Your task to perform on an android device: Search for usb-c to usb-b on newegg.com, select the first entry, and add it to the cart. Image 0: 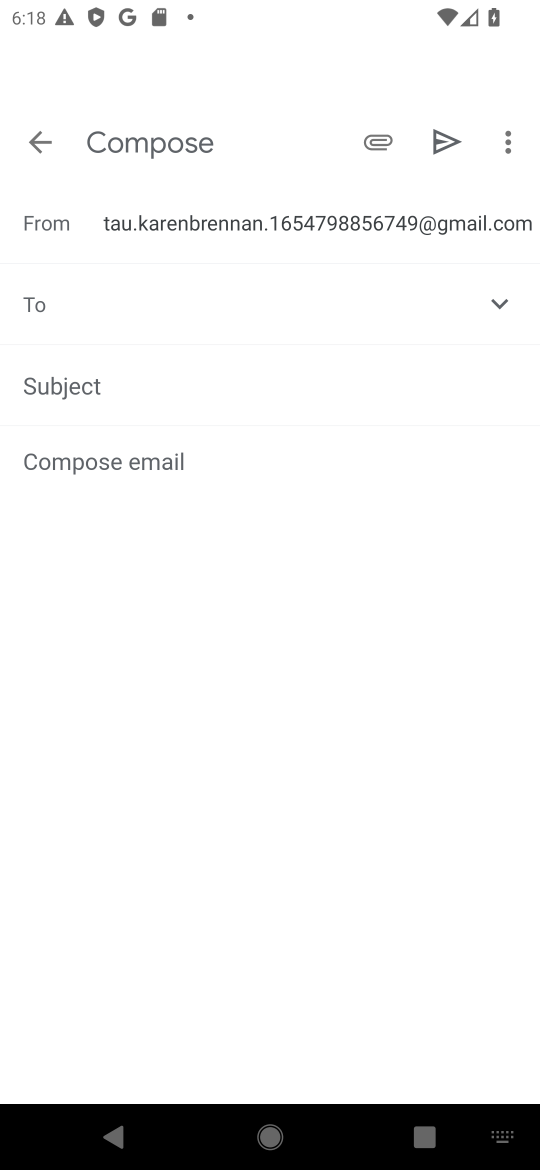
Step 0: press home button
Your task to perform on an android device: Search for usb-c to usb-b on newegg.com, select the first entry, and add it to the cart. Image 1: 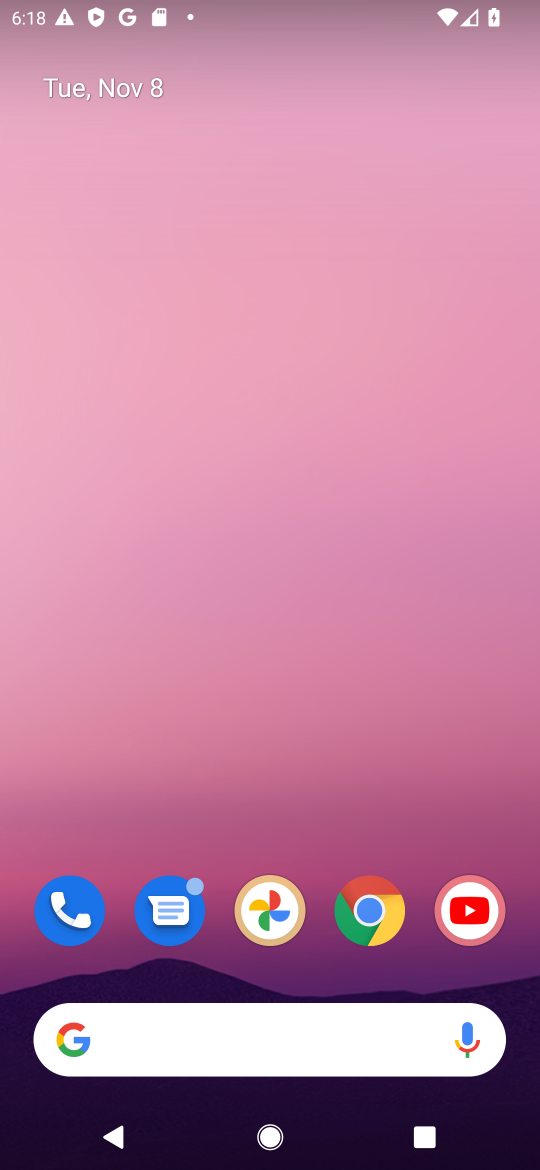
Step 1: click (346, 906)
Your task to perform on an android device: Search for usb-c to usb-b on newegg.com, select the first entry, and add it to the cart. Image 2: 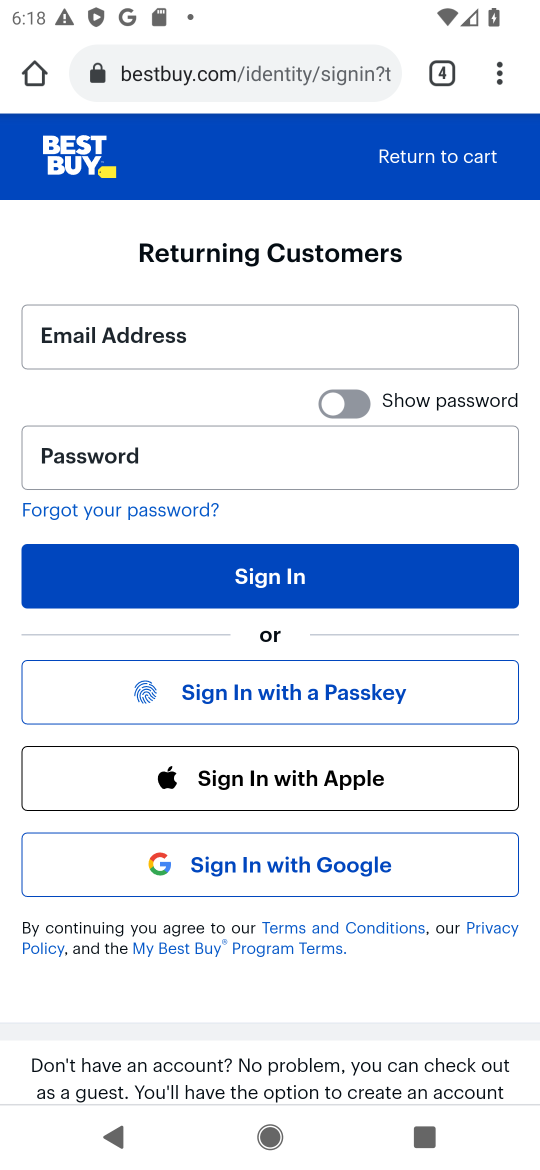
Step 2: click (443, 58)
Your task to perform on an android device: Search for usb-c to usb-b on newegg.com, select the first entry, and add it to the cart. Image 3: 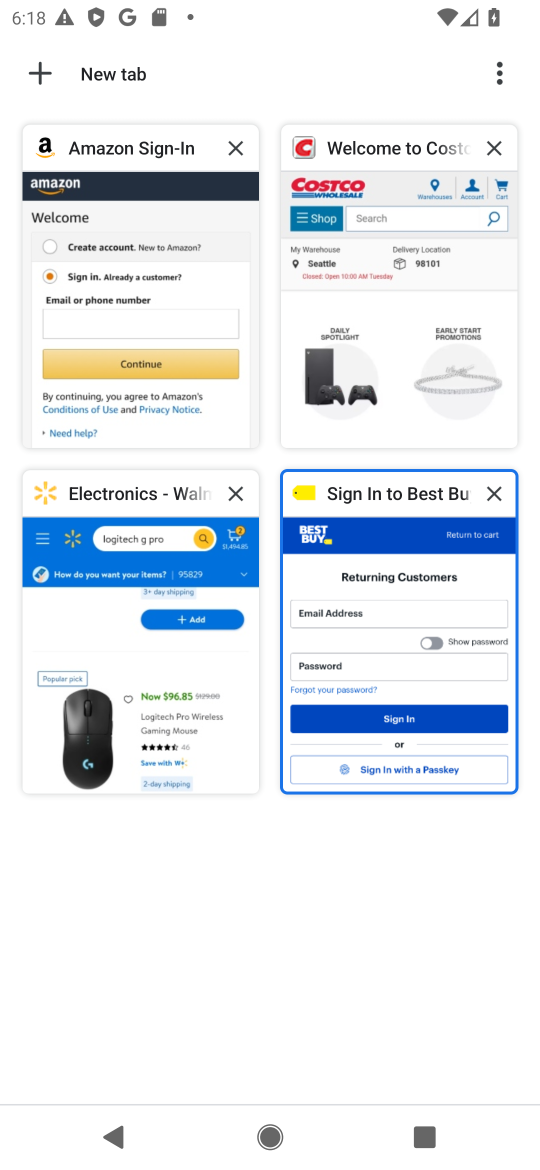
Step 3: click (40, 63)
Your task to perform on an android device: Search for usb-c to usb-b on newegg.com, select the first entry, and add it to the cart. Image 4: 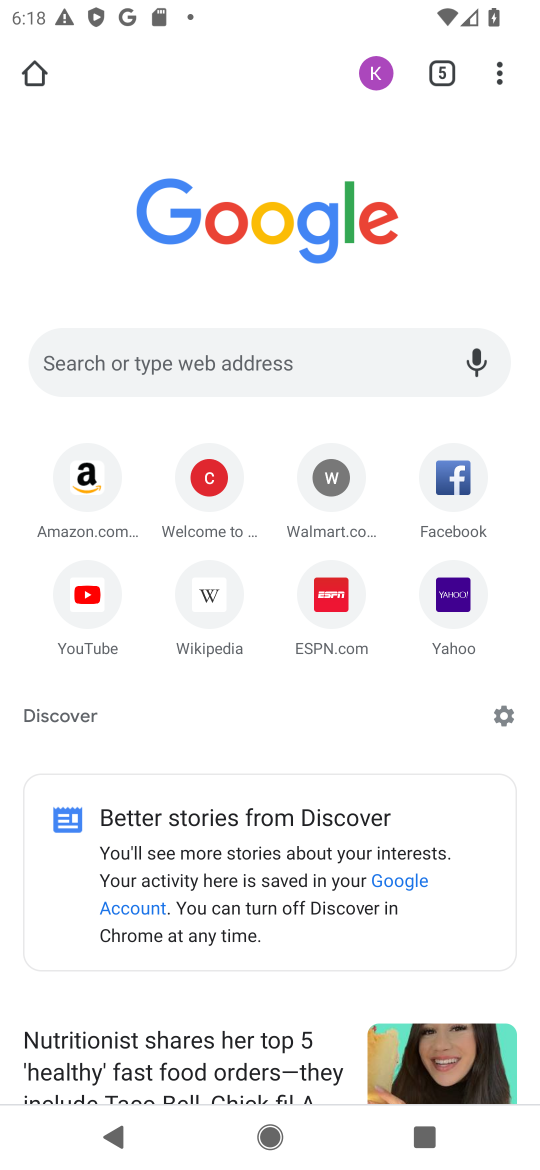
Step 4: click (233, 367)
Your task to perform on an android device: Search for usb-c to usb-b on newegg.com, select the first entry, and add it to the cart. Image 5: 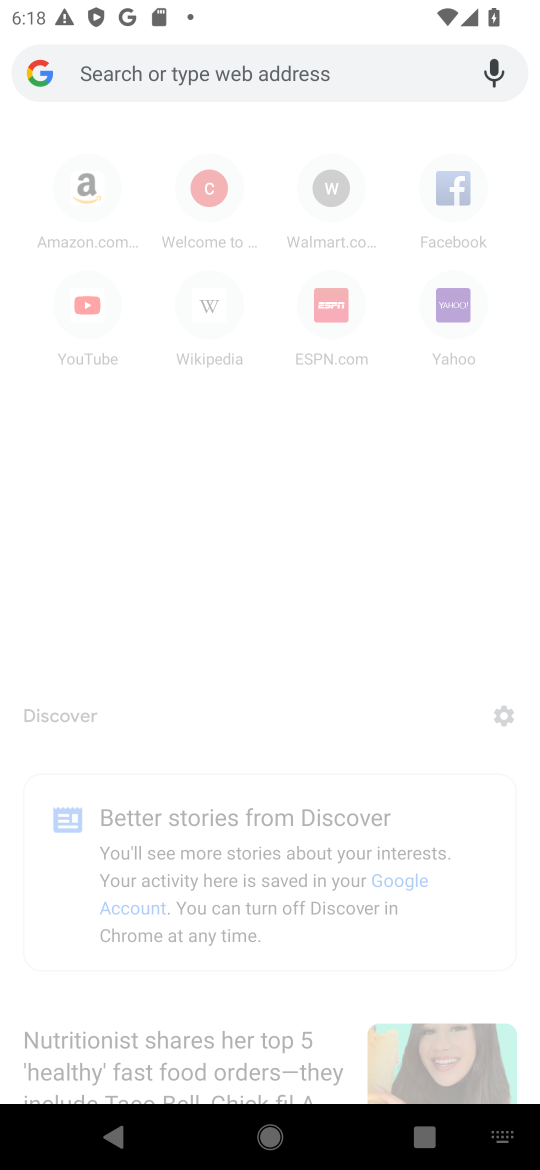
Step 5: type "newegg"
Your task to perform on an android device: Search for usb-c to usb-b on newegg.com, select the first entry, and add it to the cart. Image 6: 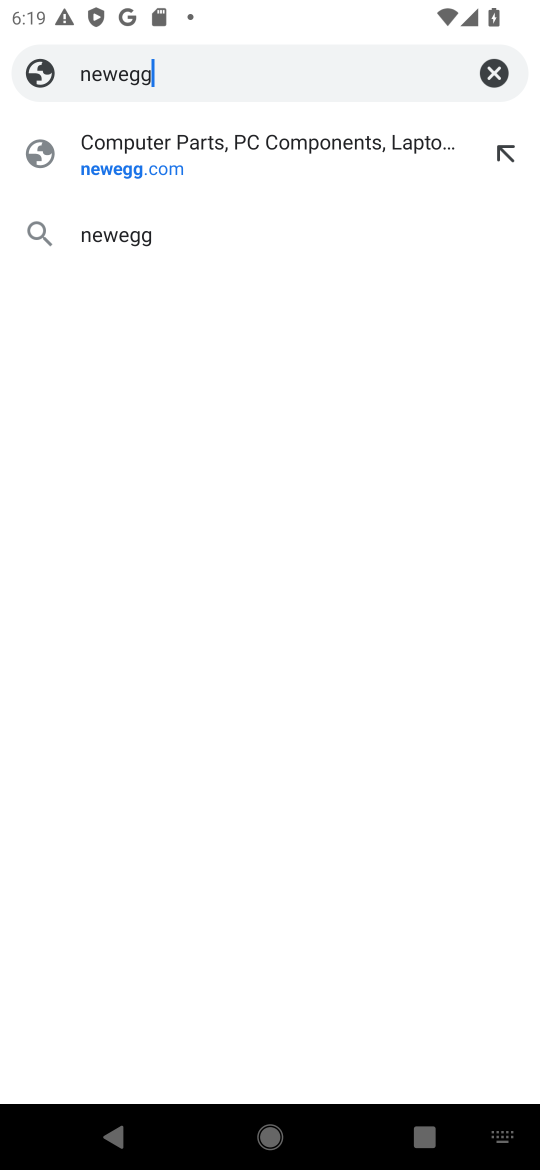
Step 6: click (181, 132)
Your task to perform on an android device: Search for usb-c to usb-b on newegg.com, select the first entry, and add it to the cart. Image 7: 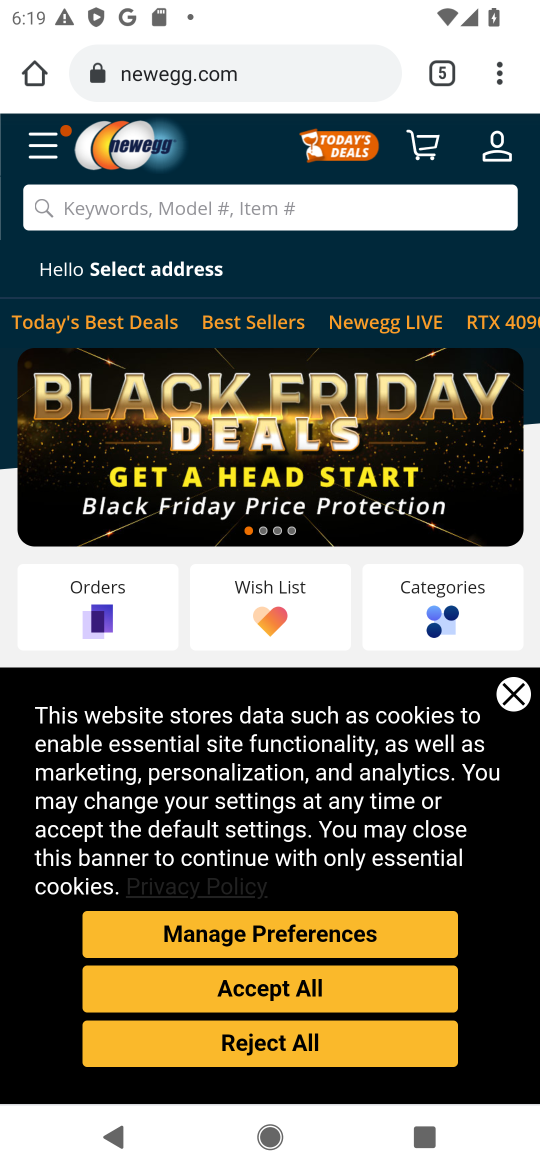
Step 7: click (147, 217)
Your task to perform on an android device: Search for usb-c to usb-b on newegg.com, select the first entry, and add it to the cart. Image 8: 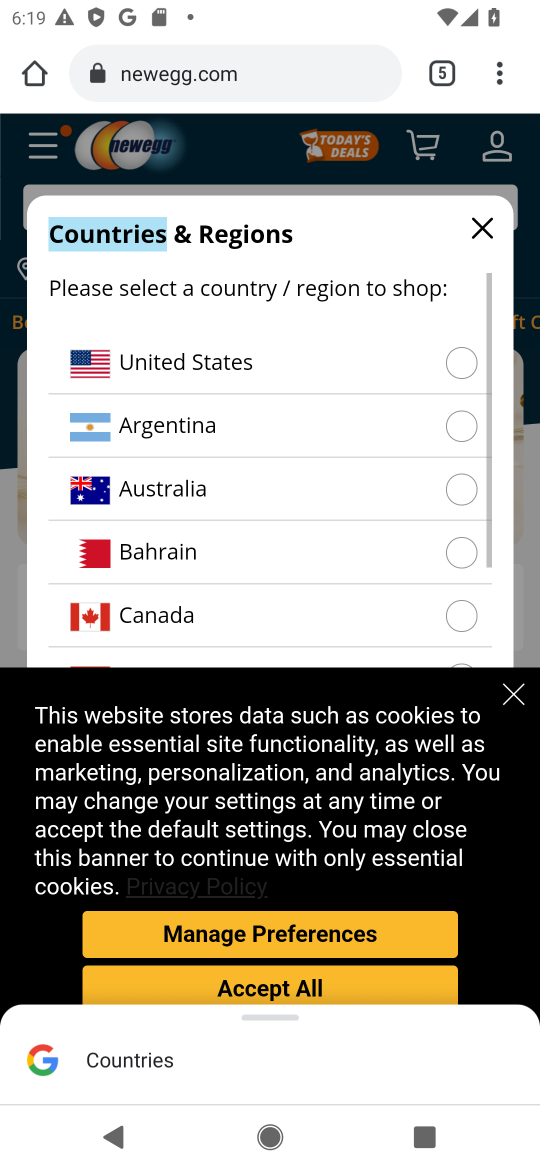
Step 8: type "usb-c to usb-b"
Your task to perform on an android device: Search for usb-c to usb-b on newegg.com, select the first entry, and add it to the cart. Image 9: 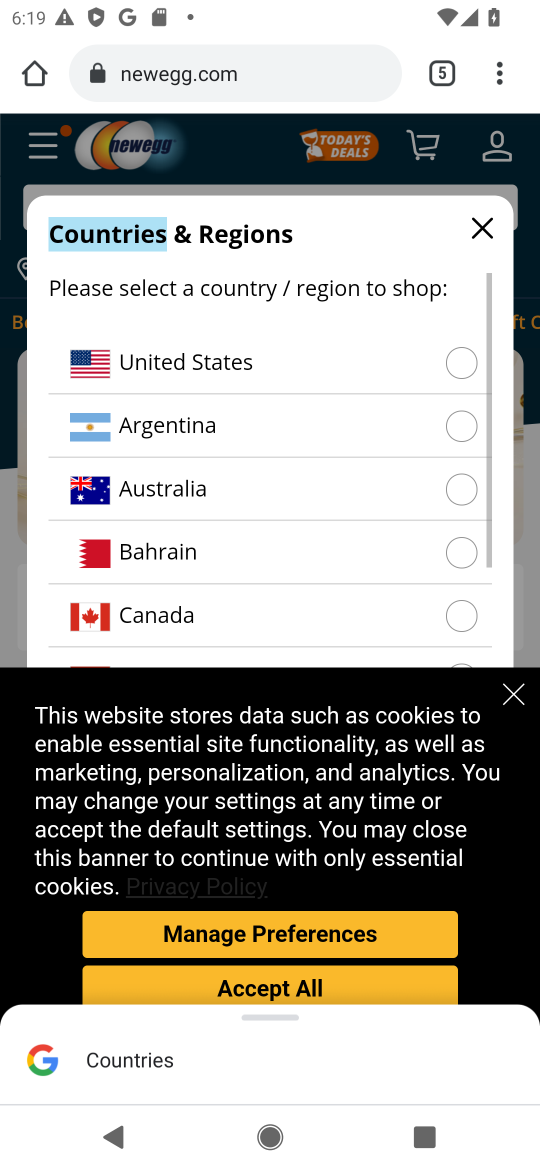
Step 9: click (521, 691)
Your task to perform on an android device: Search for usb-c to usb-b on newegg.com, select the first entry, and add it to the cart. Image 10: 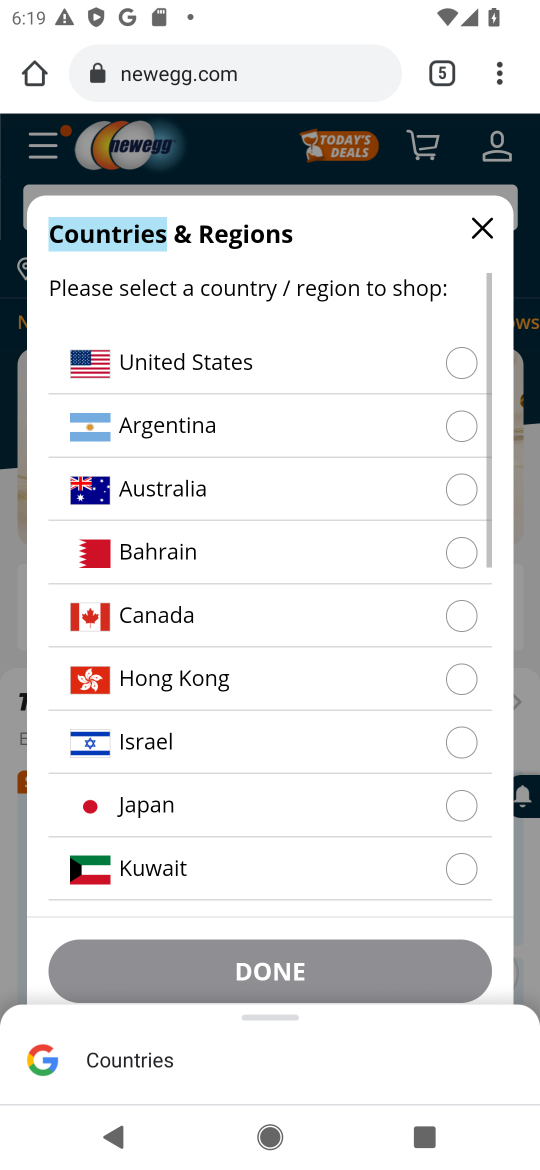
Step 10: click (471, 364)
Your task to perform on an android device: Search for usb-c to usb-b on newegg.com, select the first entry, and add it to the cart. Image 11: 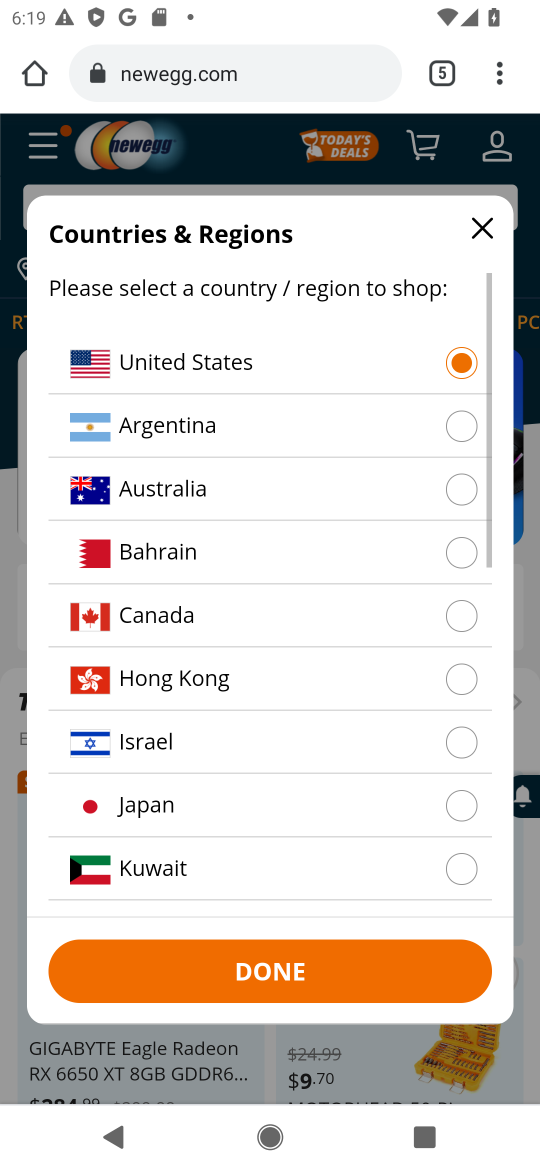
Step 11: click (230, 965)
Your task to perform on an android device: Search for usb-c to usb-b on newegg.com, select the first entry, and add it to the cart. Image 12: 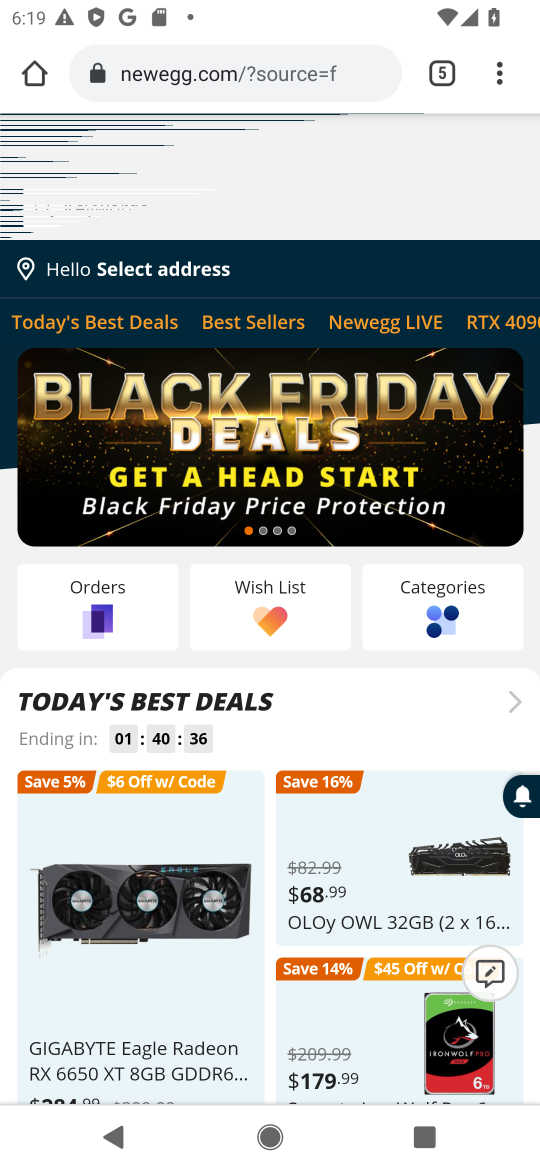
Step 12: click (270, 201)
Your task to perform on an android device: Search for usb-c to usb-b on newegg.com, select the first entry, and add it to the cart. Image 13: 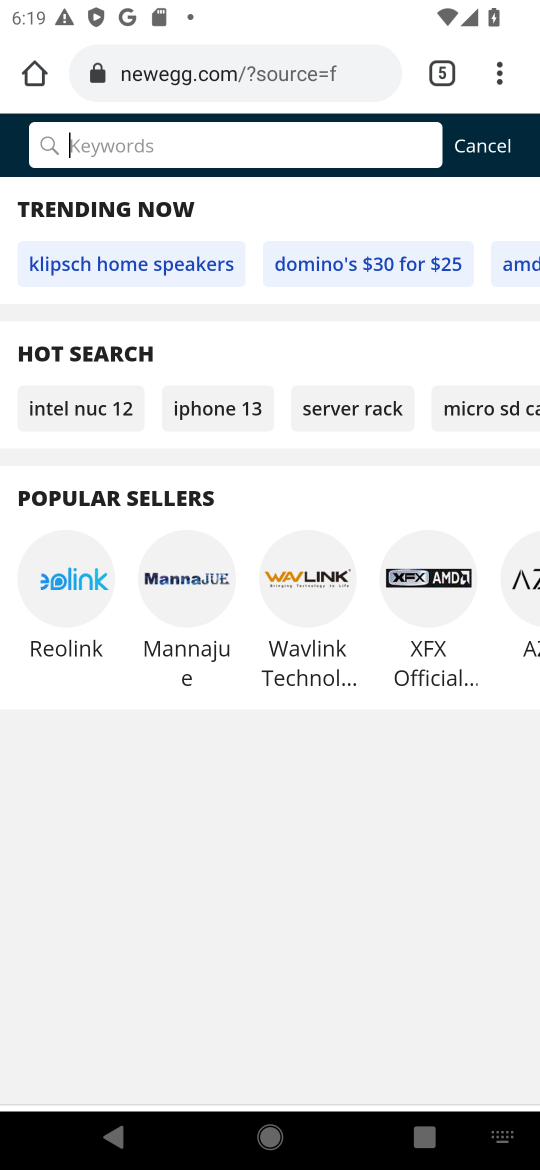
Step 13: type "usb-c to usb-b"
Your task to perform on an android device: Search for usb-c to usb-b on newegg.com, select the first entry, and add it to the cart. Image 14: 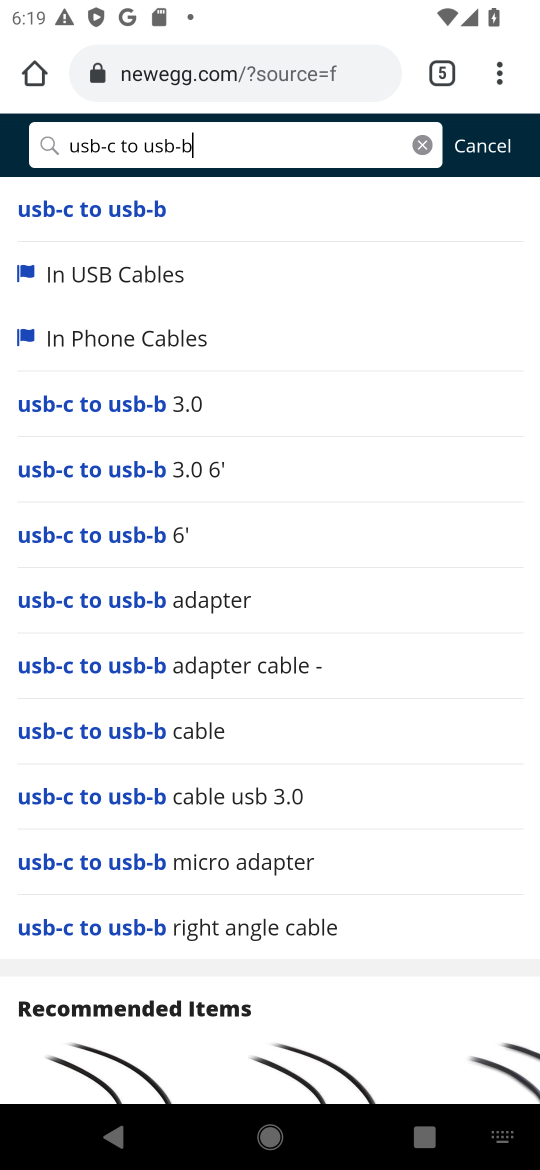
Step 14: click (103, 210)
Your task to perform on an android device: Search for usb-c to usb-b on newegg.com, select the first entry, and add it to the cart. Image 15: 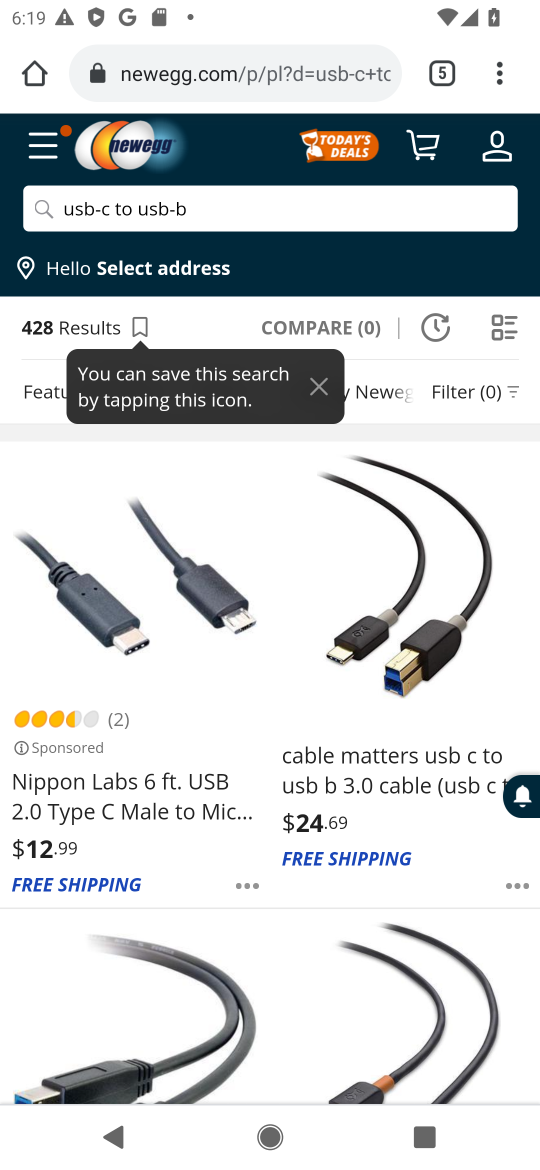
Step 15: click (338, 771)
Your task to perform on an android device: Search for usb-c to usb-b on newegg.com, select the first entry, and add it to the cart. Image 16: 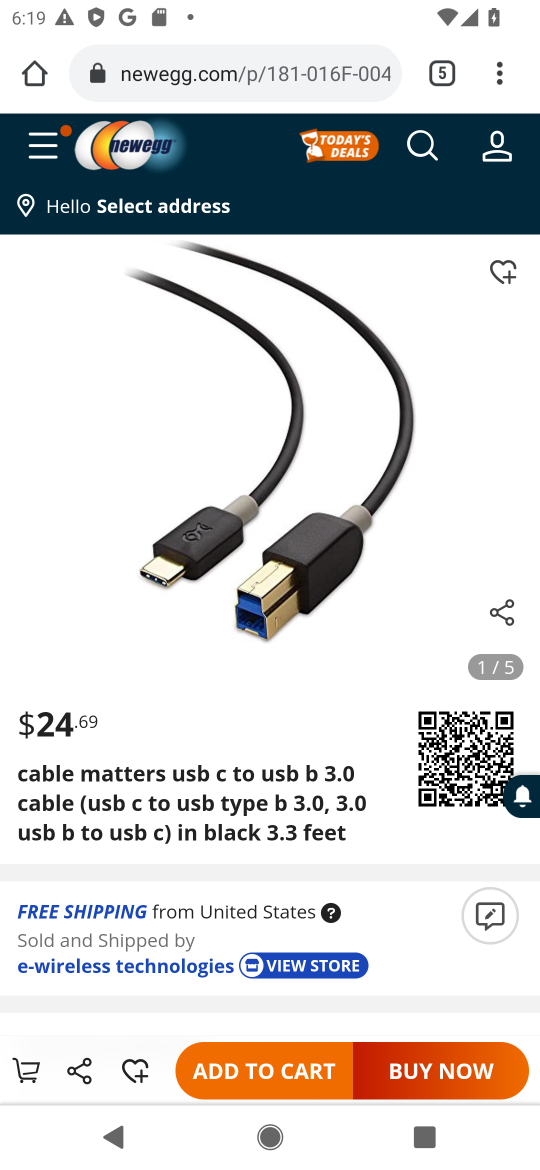
Step 16: click (277, 1074)
Your task to perform on an android device: Search for usb-c to usb-b on newegg.com, select the first entry, and add it to the cart. Image 17: 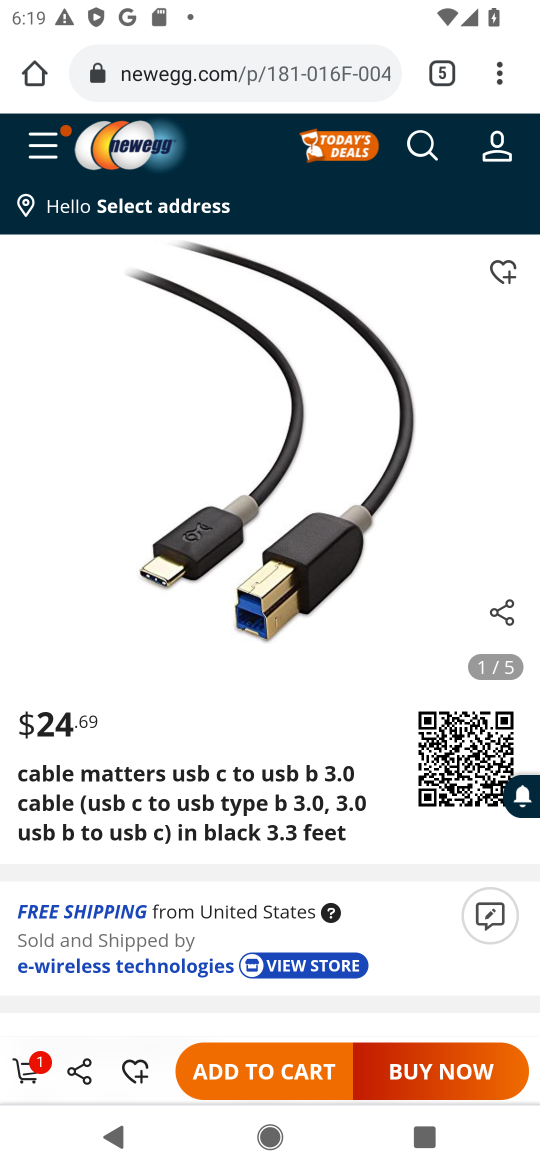
Step 17: task complete